Your task to perform on an android device: Go to location settings Image 0: 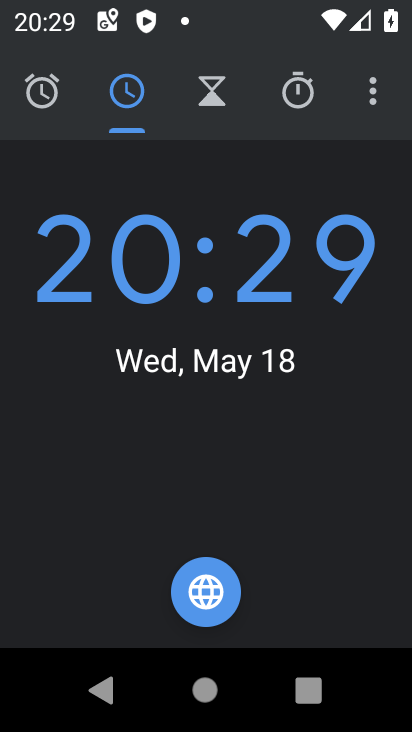
Step 0: press home button
Your task to perform on an android device: Go to location settings Image 1: 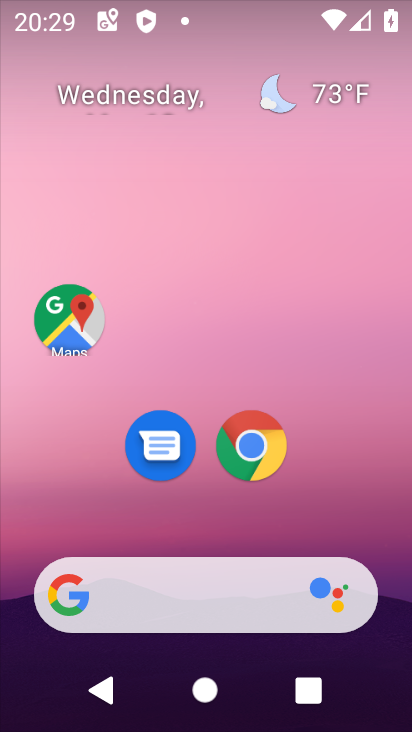
Step 1: drag from (300, 494) to (301, 53)
Your task to perform on an android device: Go to location settings Image 2: 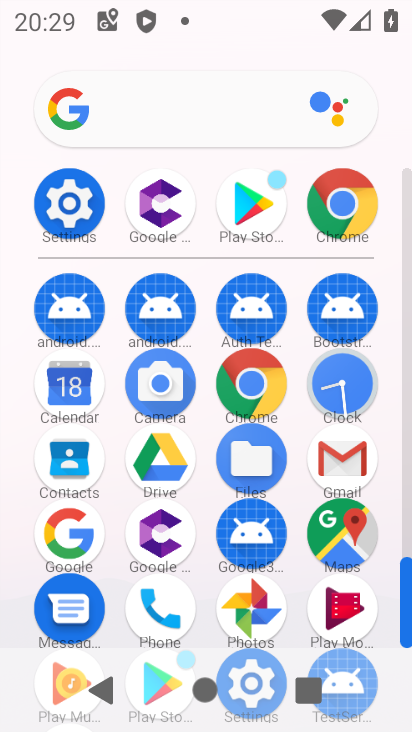
Step 2: click (59, 205)
Your task to perform on an android device: Go to location settings Image 3: 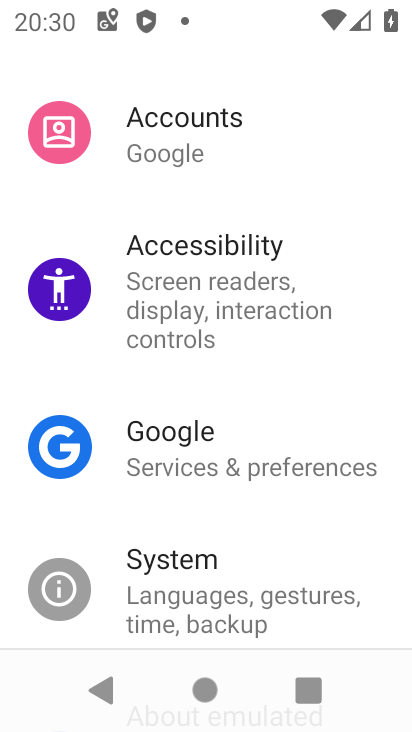
Step 3: drag from (247, 584) to (269, 142)
Your task to perform on an android device: Go to location settings Image 4: 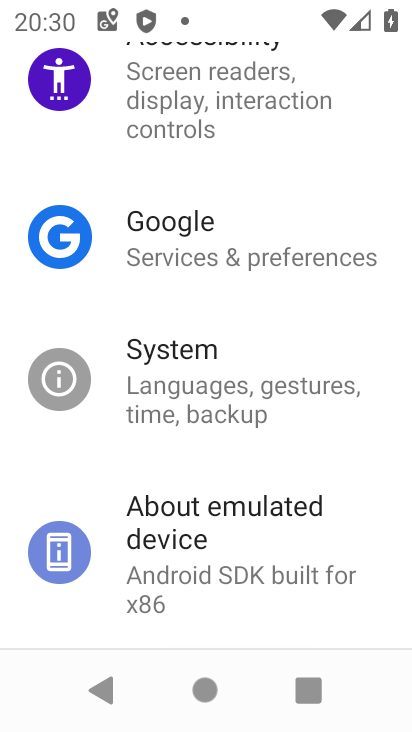
Step 4: drag from (249, 126) to (245, 554)
Your task to perform on an android device: Go to location settings Image 5: 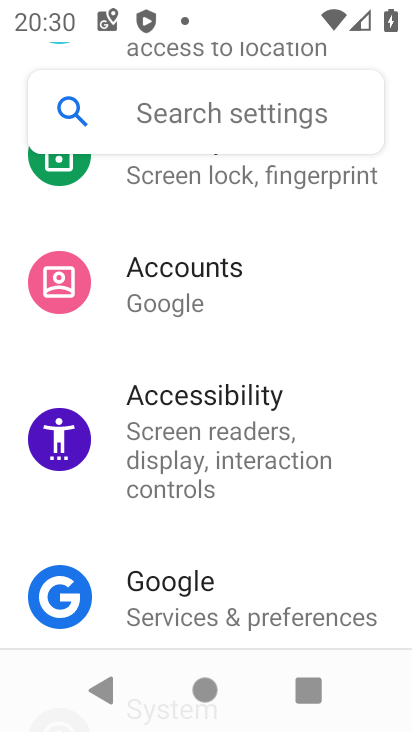
Step 5: drag from (154, 221) to (229, 584)
Your task to perform on an android device: Go to location settings Image 6: 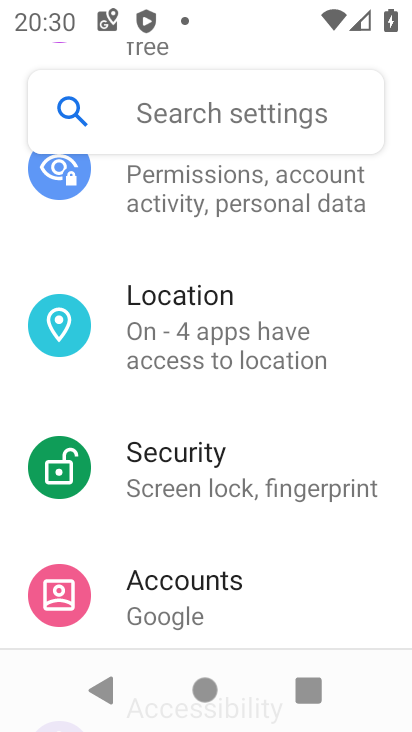
Step 6: click (178, 321)
Your task to perform on an android device: Go to location settings Image 7: 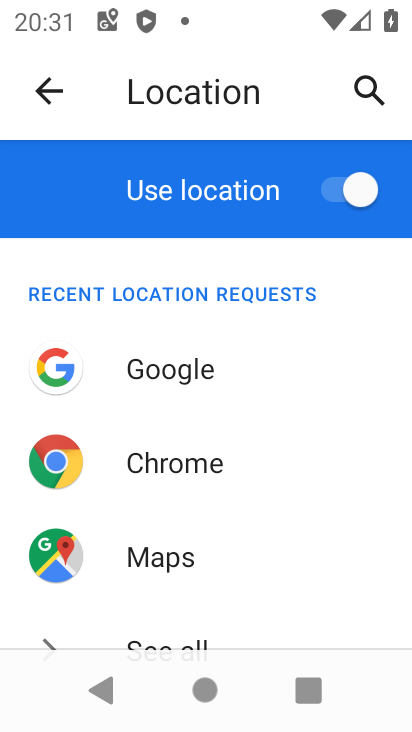
Step 7: task complete